Your task to perform on an android device: Set the phone to "Do not disturb". Image 0: 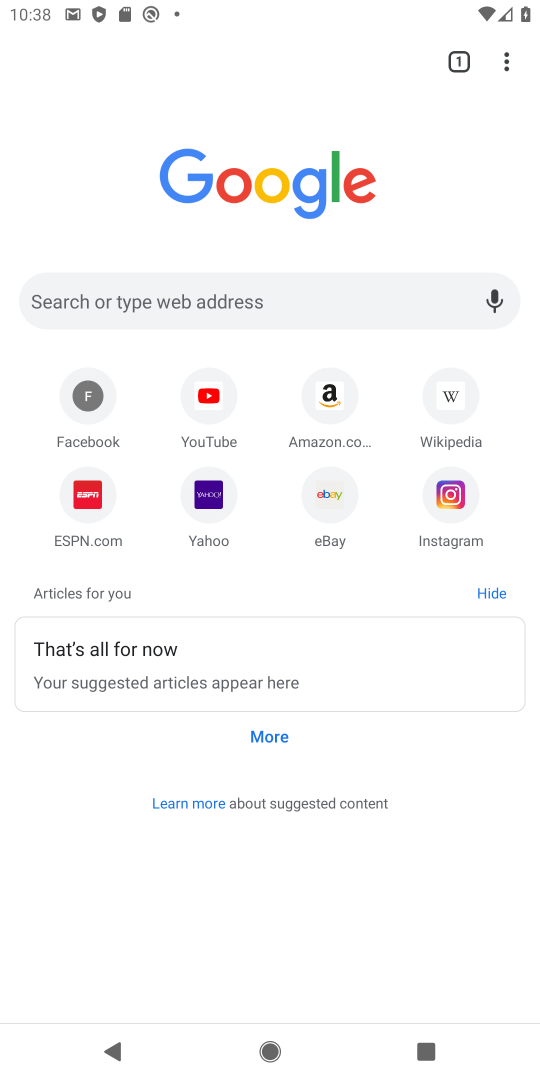
Step 0: press home button
Your task to perform on an android device: Set the phone to "Do not disturb". Image 1: 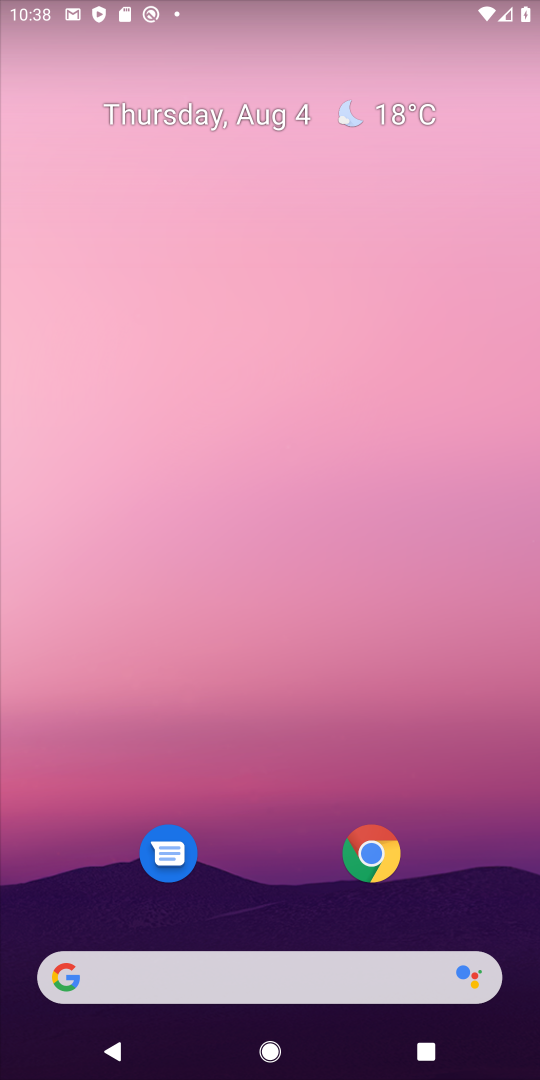
Step 1: drag from (227, 925) to (191, 49)
Your task to perform on an android device: Set the phone to "Do not disturb". Image 2: 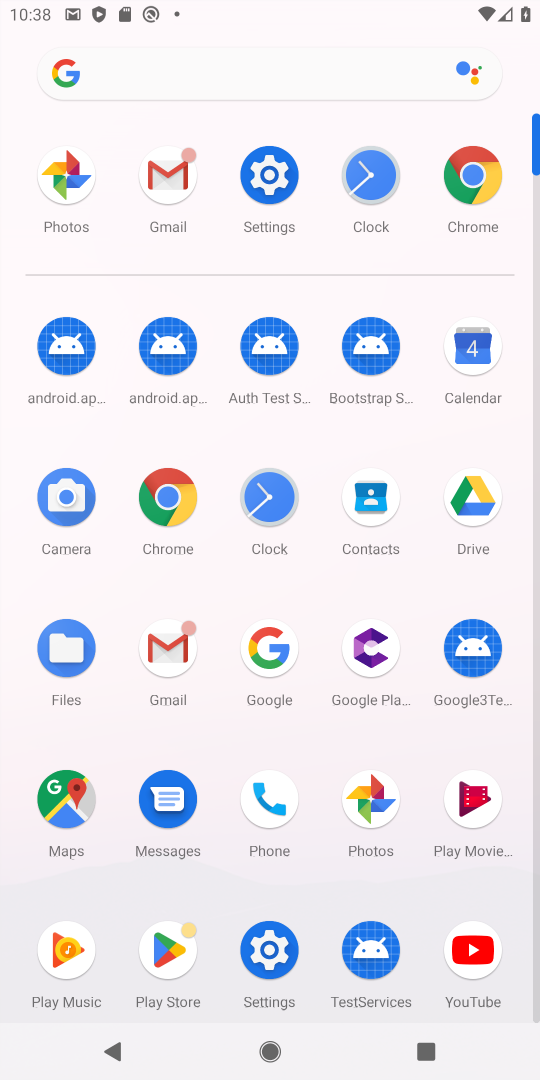
Step 2: drag from (325, 9) to (326, 835)
Your task to perform on an android device: Set the phone to "Do not disturb". Image 3: 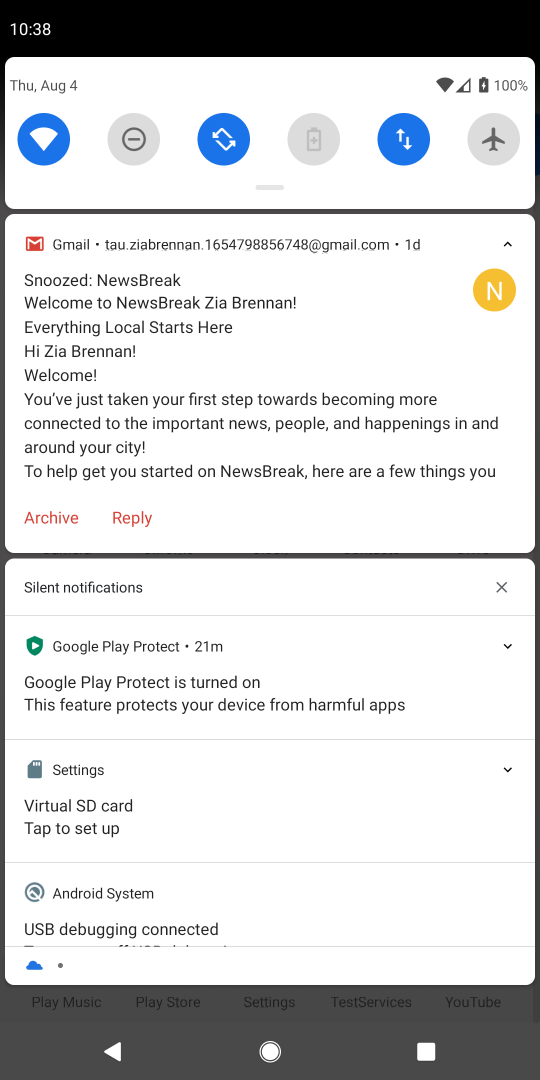
Step 3: click (126, 150)
Your task to perform on an android device: Set the phone to "Do not disturb". Image 4: 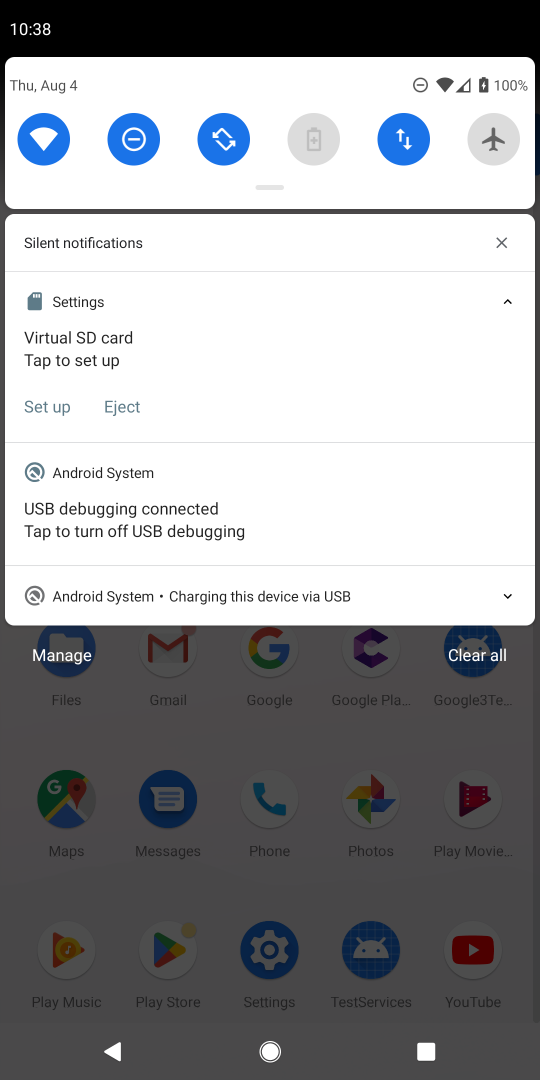
Step 4: task complete